Your task to perform on an android device: Go to ESPN.com Image 0: 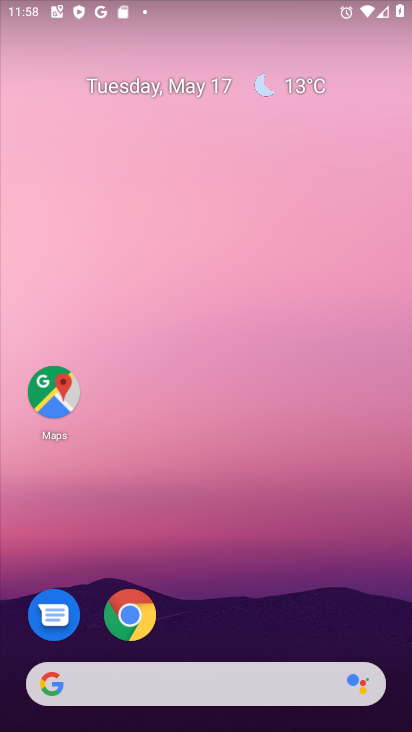
Step 0: click (130, 613)
Your task to perform on an android device: Go to ESPN.com Image 1: 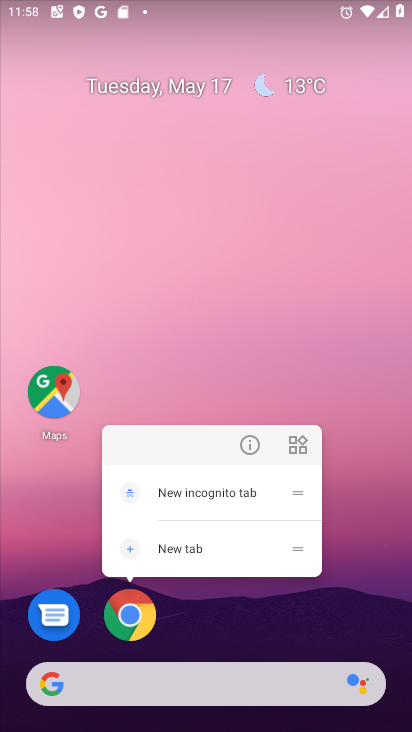
Step 1: click (133, 622)
Your task to perform on an android device: Go to ESPN.com Image 2: 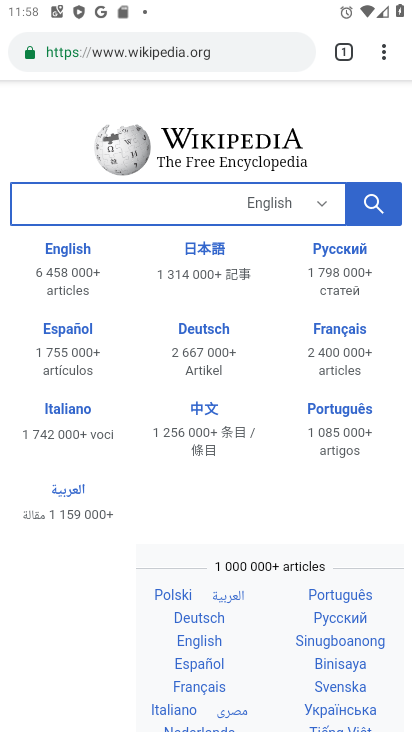
Step 2: click (217, 56)
Your task to perform on an android device: Go to ESPN.com Image 3: 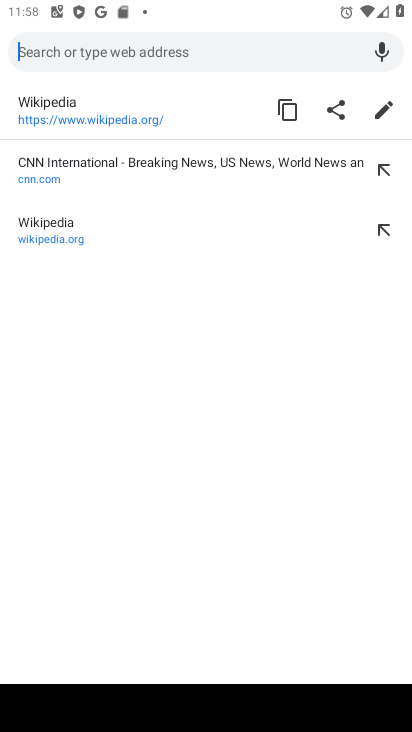
Step 3: type "espn.com"
Your task to perform on an android device: Go to ESPN.com Image 4: 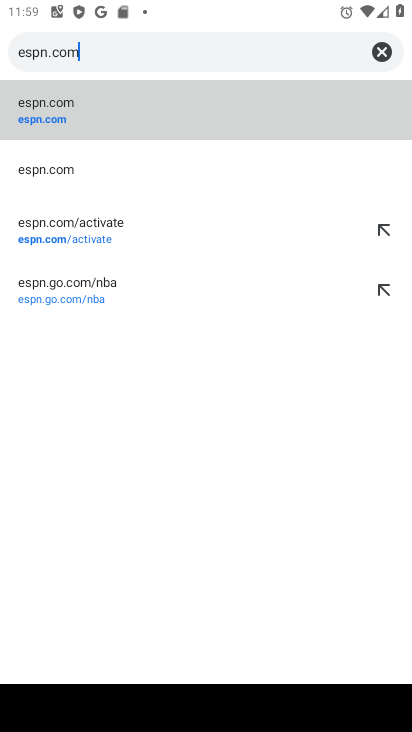
Step 4: click (49, 119)
Your task to perform on an android device: Go to ESPN.com Image 5: 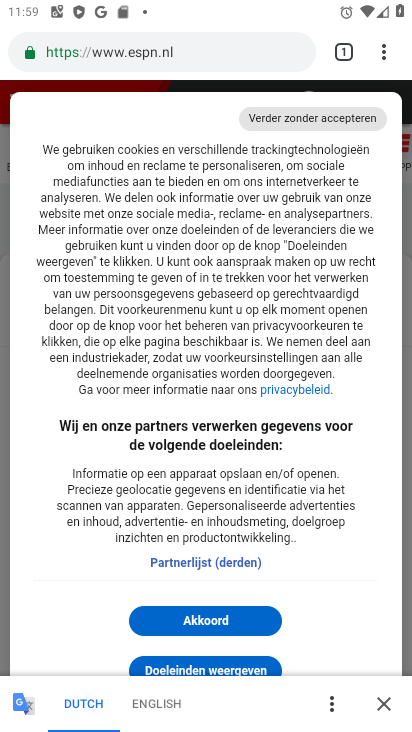
Step 5: task complete